Your task to perform on an android device: Search for sushi restaurants on Maps Image 0: 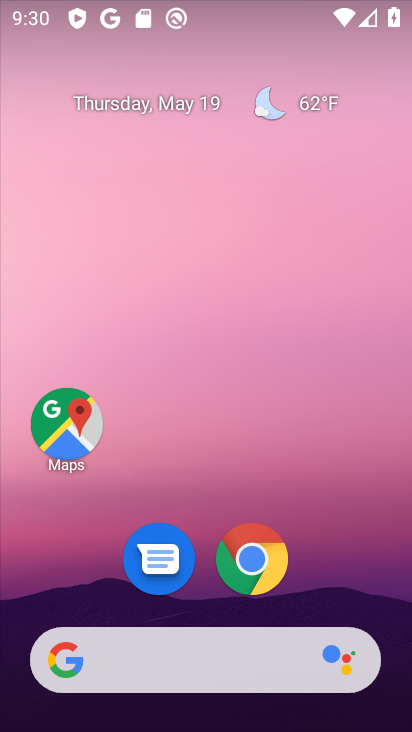
Step 0: click (63, 436)
Your task to perform on an android device: Search for sushi restaurants on Maps Image 1: 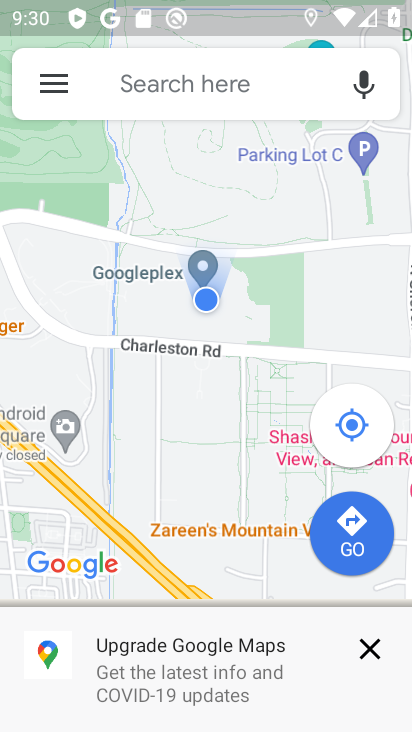
Step 1: click (235, 102)
Your task to perform on an android device: Search for sushi restaurants on Maps Image 2: 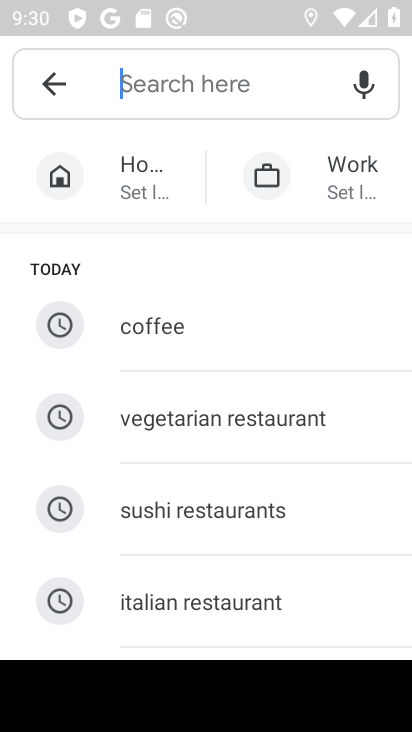
Step 2: click (296, 507)
Your task to perform on an android device: Search for sushi restaurants on Maps Image 3: 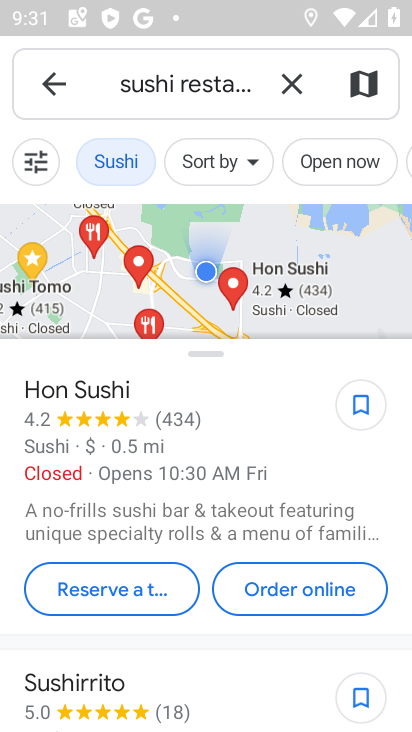
Step 3: task complete